Your task to perform on an android device: Open Wikipedia Image 0: 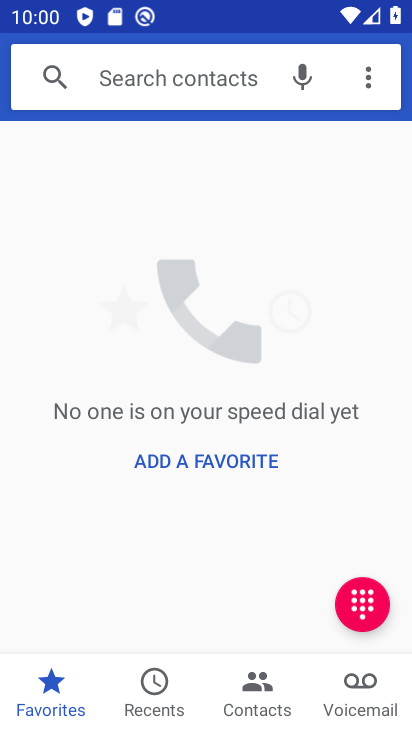
Step 0: press back button
Your task to perform on an android device: Open Wikipedia Image 1: 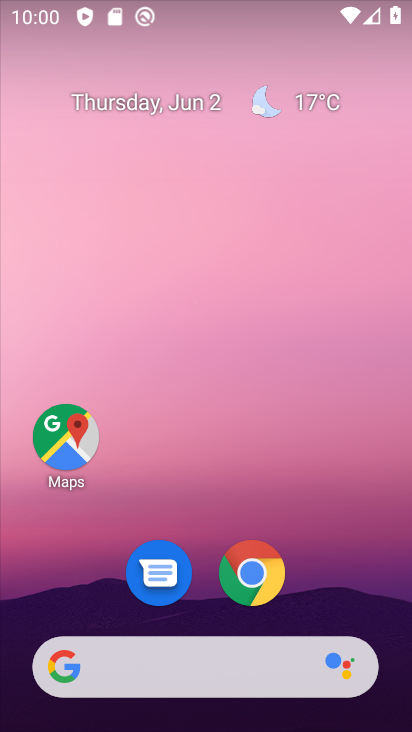
Step 1: click (254, 573)
Your task to perform on an android device: Open Wikipedia Image 2: 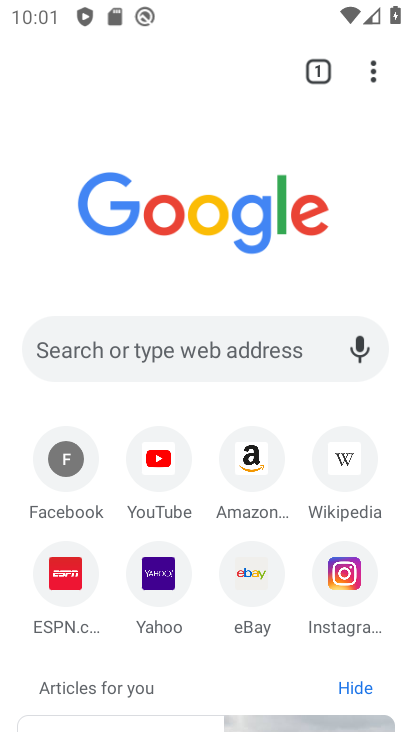
Step 2: click (343, 458)
Your task to perform on an android device: Open Wikipedia Image 3: 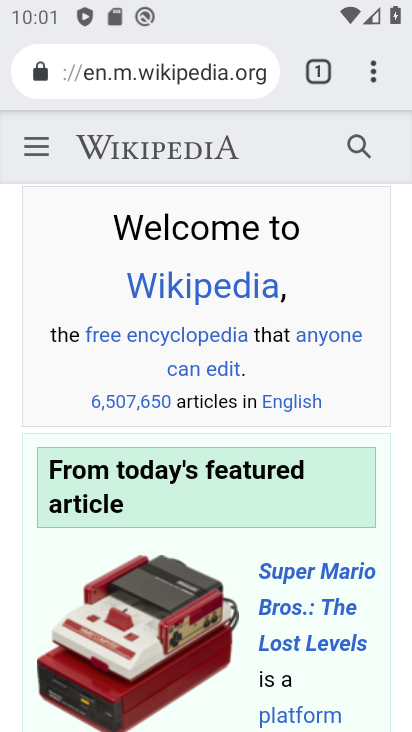
Step 3: task complete